Your task to perform on an android device: Open Wikipedia Image 0: 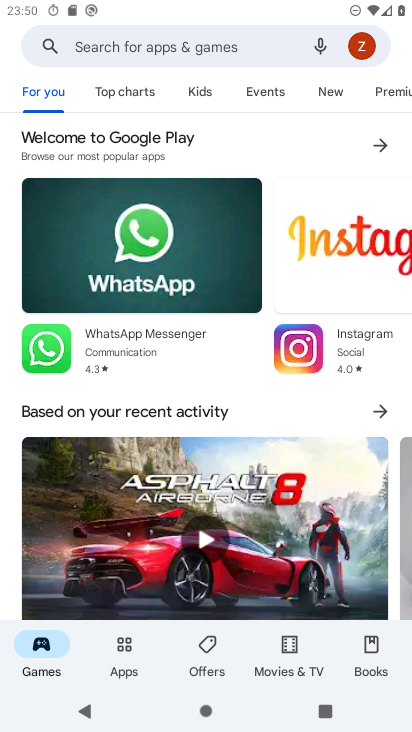
Step 0: press home button
Your task to perform on an android device: Open Wikipedia Image 1: 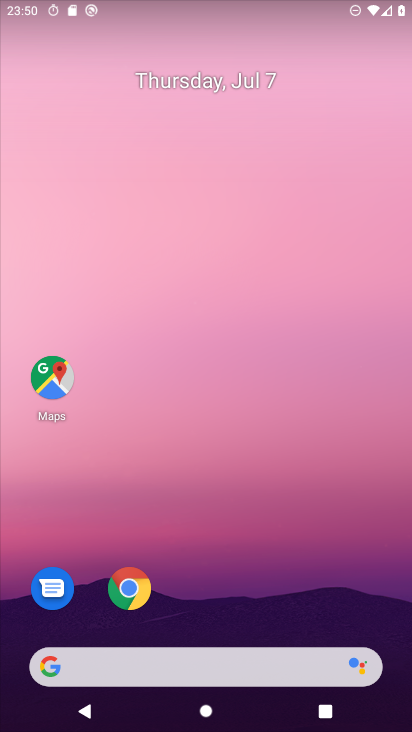
Step 1: drag from (306, 596) to (323, 148)
Your task to perform on an android device: Open Wikipedia Image 2: 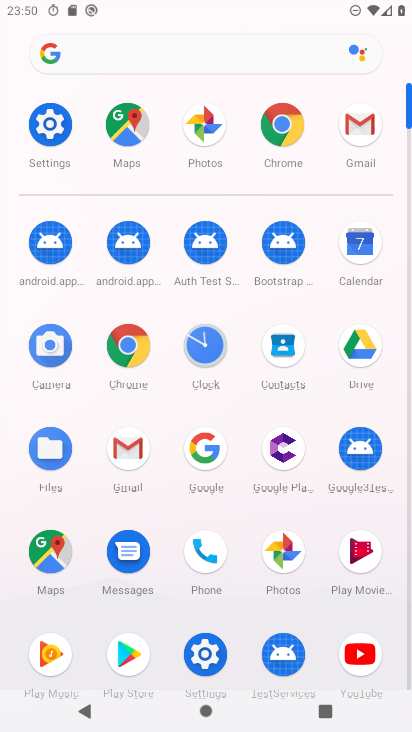
Step 2: click (285, 122)
Your task to perform on an android device: Open Wikipedia Image 3: 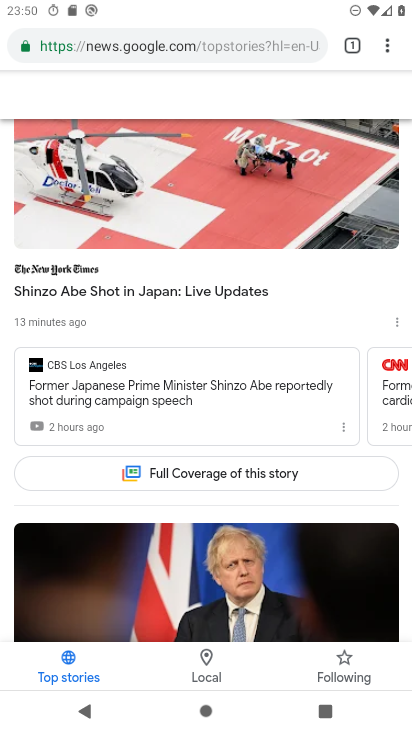
Step 3: click (156, 42)
Your task to perform on an android device: Open Wikipedia Image 4: 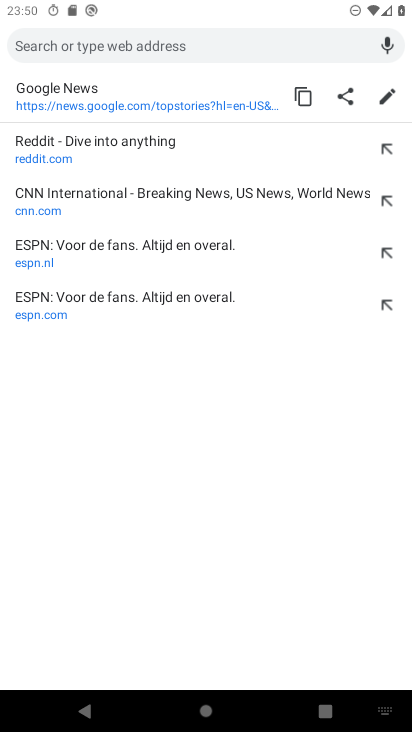
Step 4: type "wikipedia"
Your task to perform on an android device: Open Wikipedia Image 5: 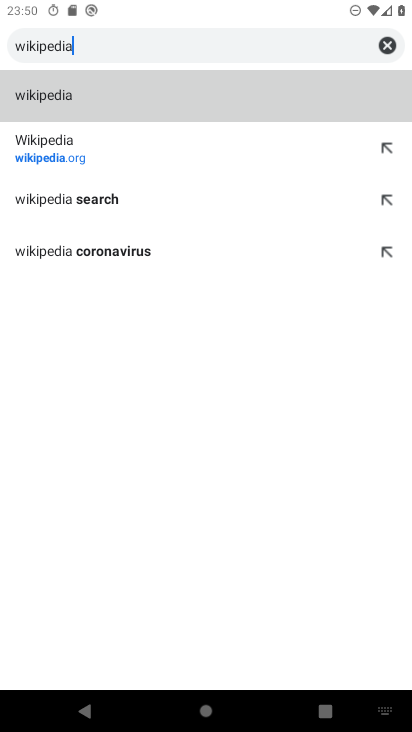
Step 5: click (64, 159)
Your task to perform on an android device: Open Wikipedia Image 6: 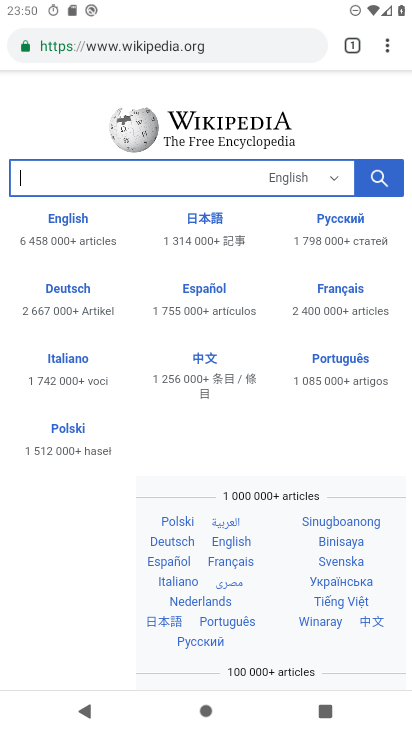
Step 6: task complete